Your task to perform on an android device: Open eBay Image 0: 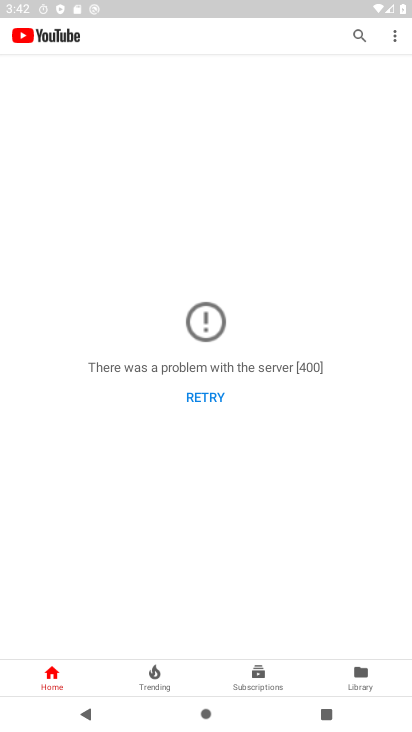
Step 0: press back button
Your task to perform on an android device: Open eBay Image 1: 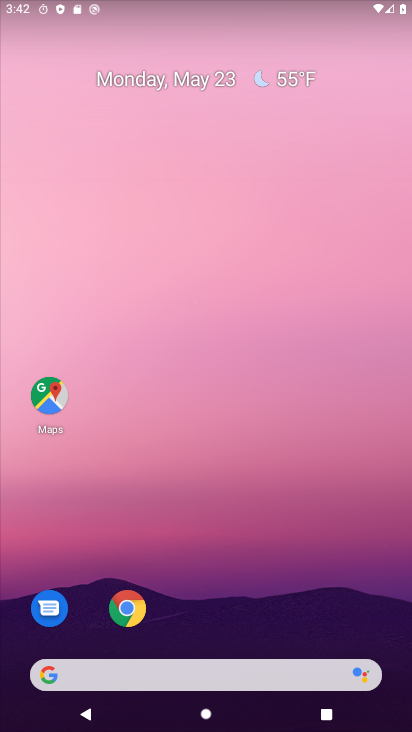
Step 1: click (128, 603)
Your task to perform on an android device: Open eBay Image 2: 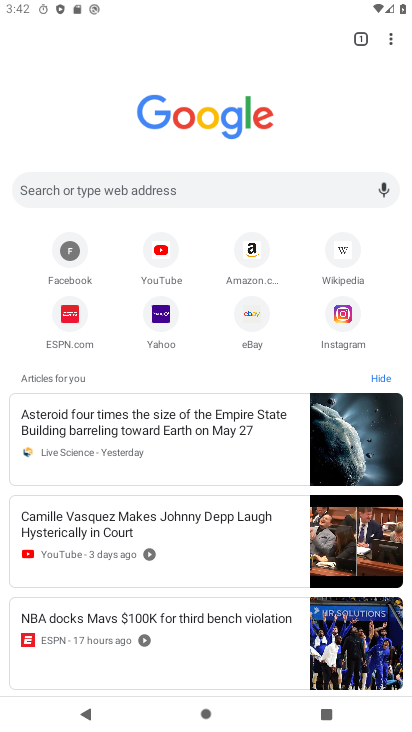
Step 2: click (257, 312)
Your task to perform on an android device: Open eBay Image 3: 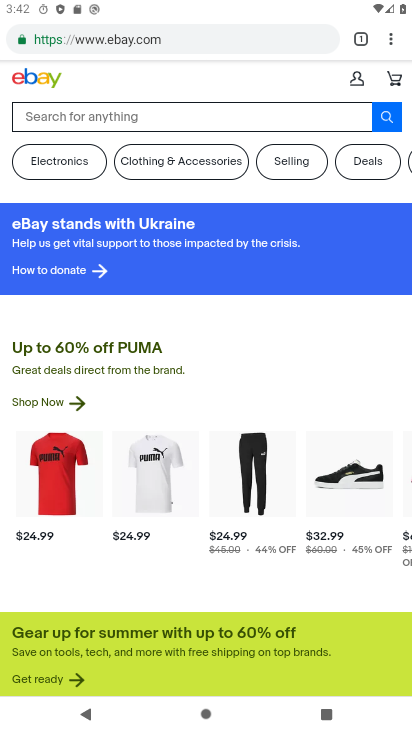
Step 3: task complete